Your task to perform on an android device: uninstall "Yahoo Mail" Image 0: 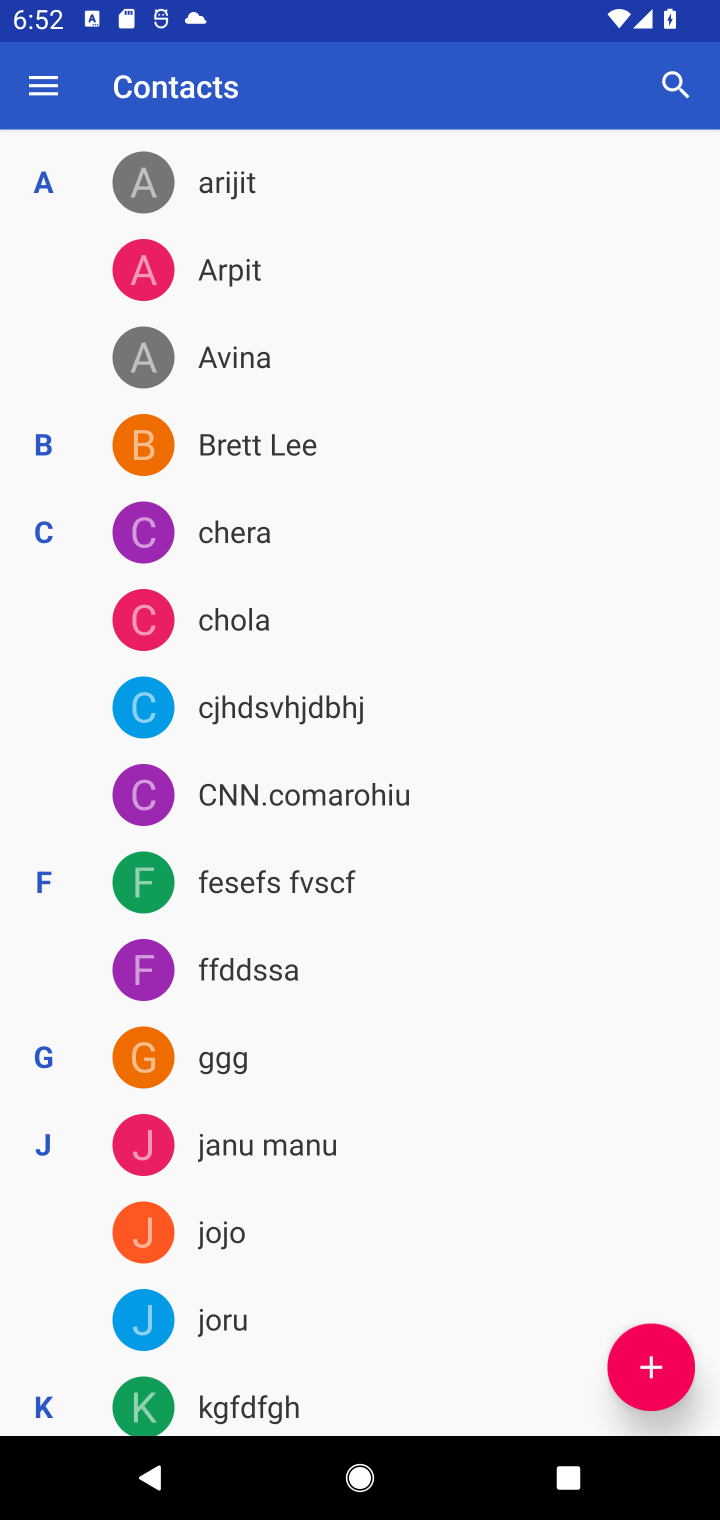
Step 0: press home button
Your task to perform on an android device: uninstall "Yahoo Mail" Image 1: 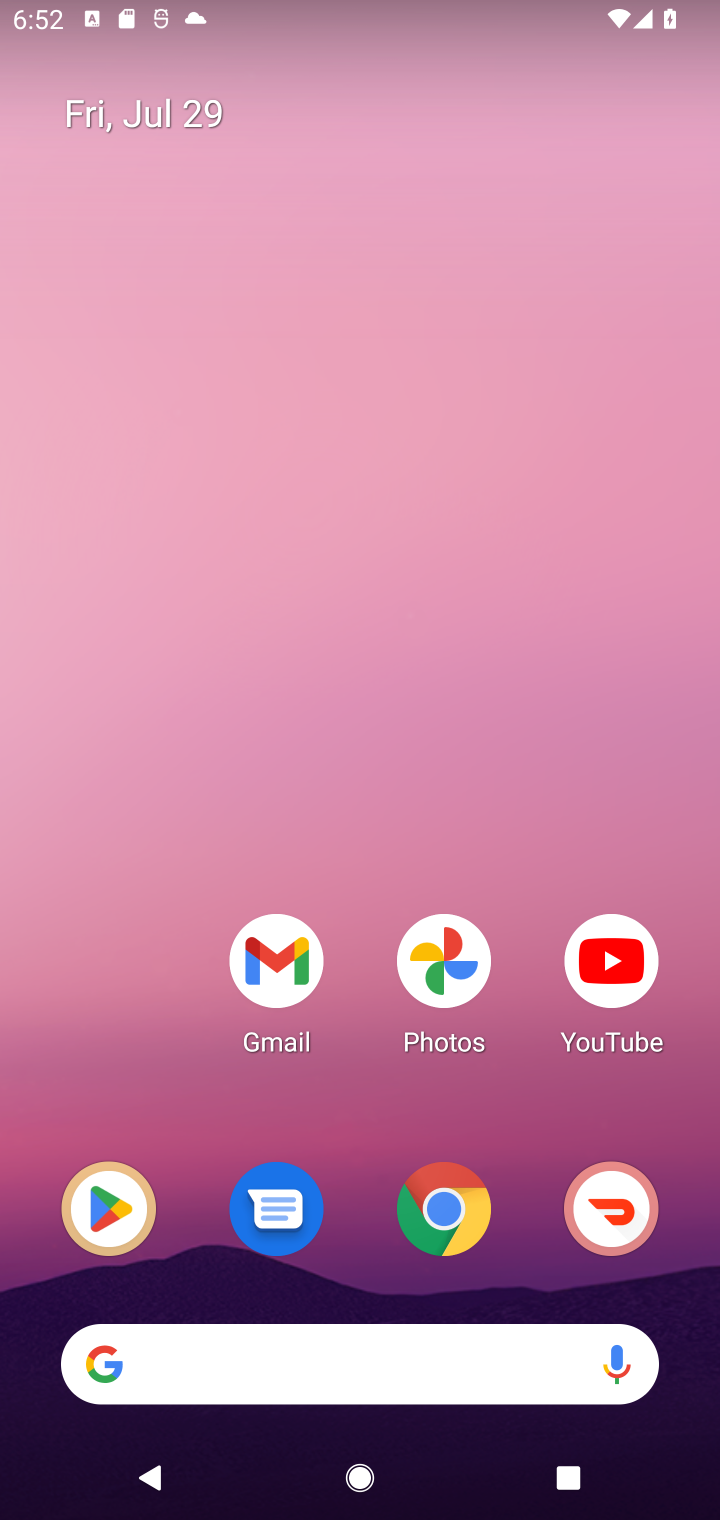
Step 1: drag from (382, 1200) to (444, 52)
Your task to perform on an android device: uninstall "Yahoo Mail" Image 2: 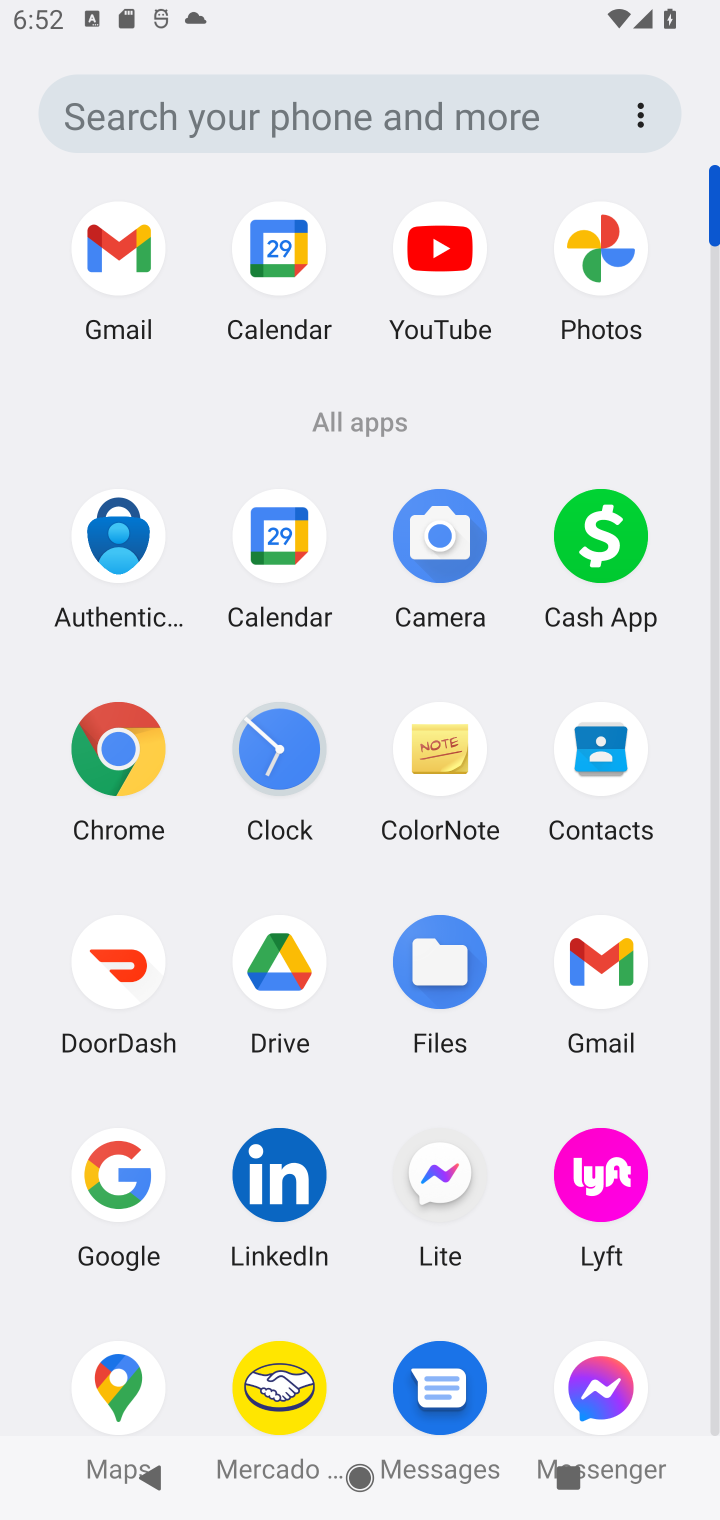
Step 2: drag from (695, 1217) to (706, 1090)
Your task to perform on an android device: uninstall "Yahoo Mail" Image 3: 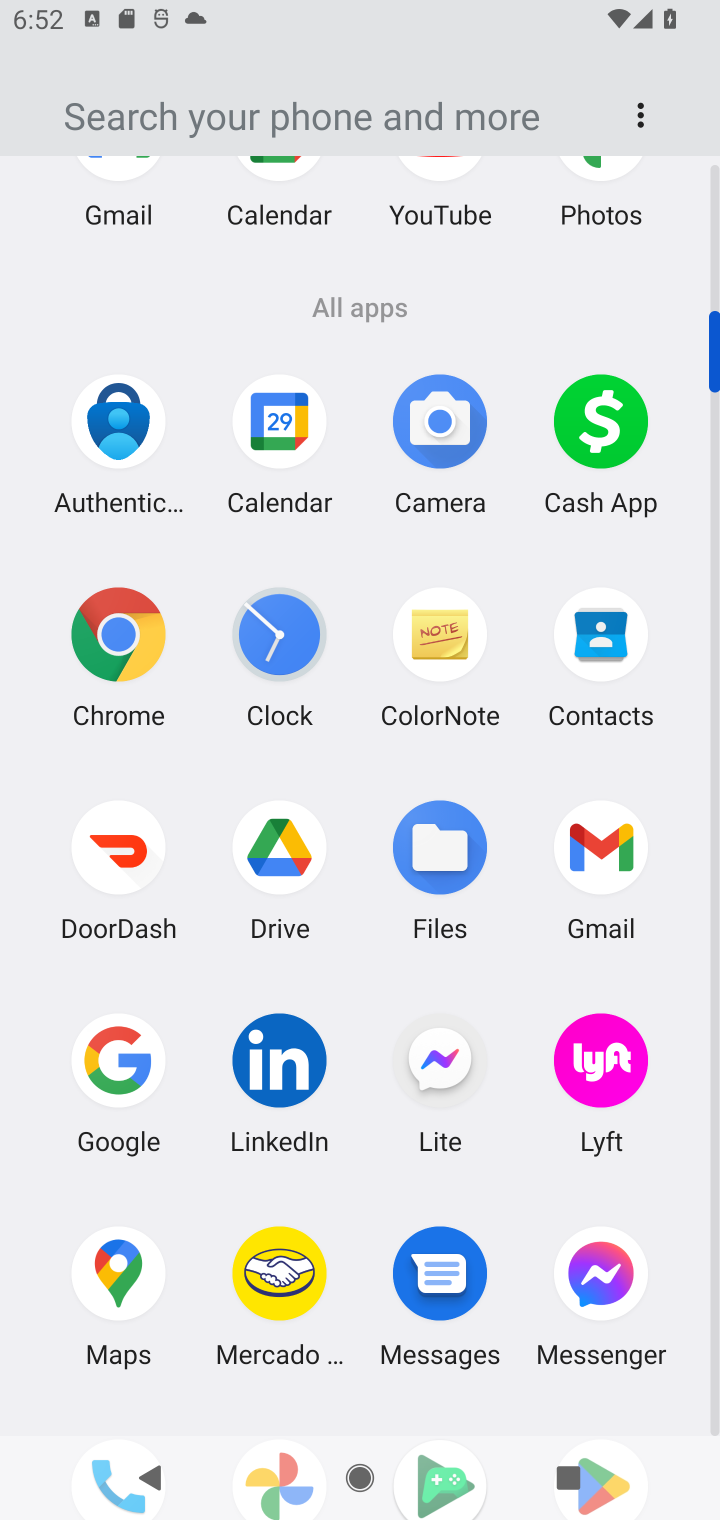
Step 3: drag from (710, 1232) to (718, 926)
Your task to perform on an android device: uninstall "Yahoo Mail" Image 4: 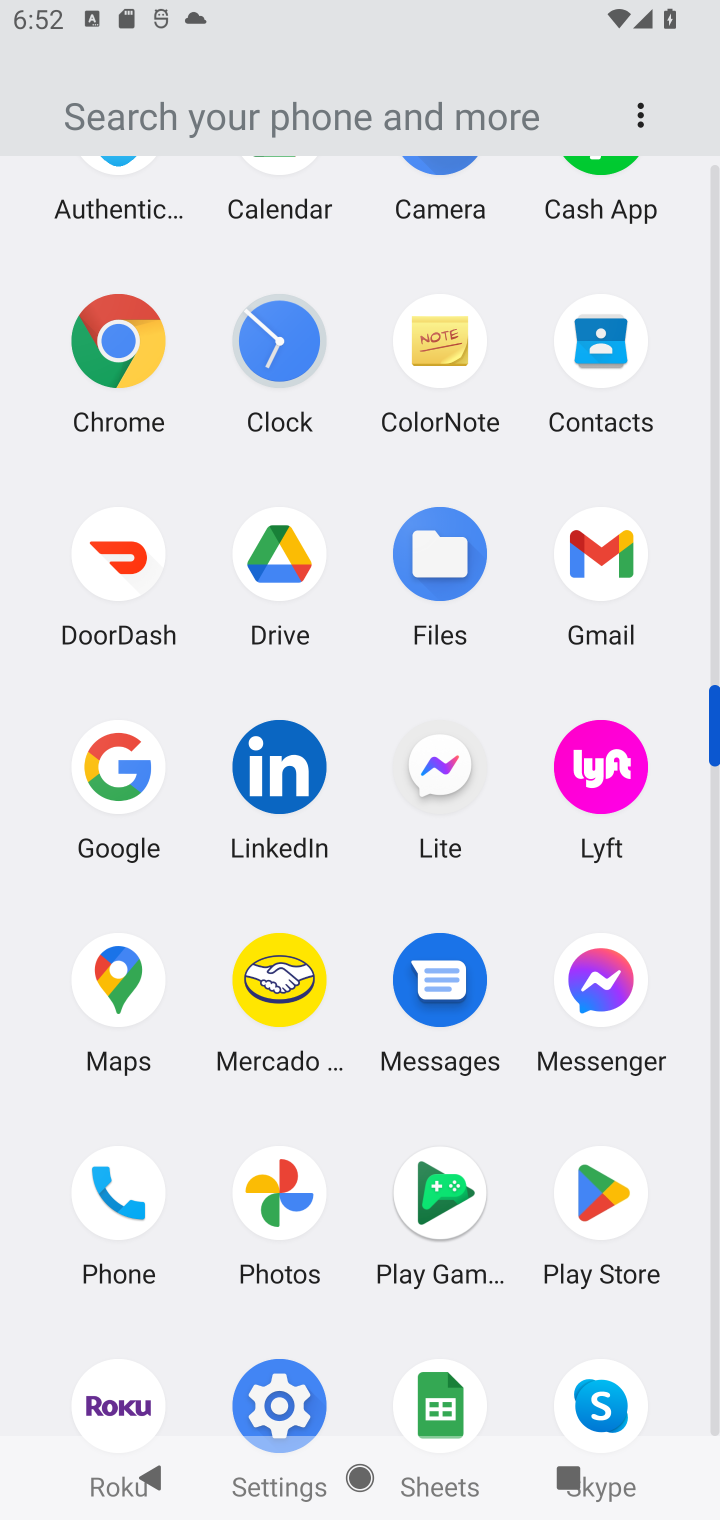
Step 4: click (713, 1120)
Your task to perform on an android device: uninstall "Yahoo Mail" Image 5: 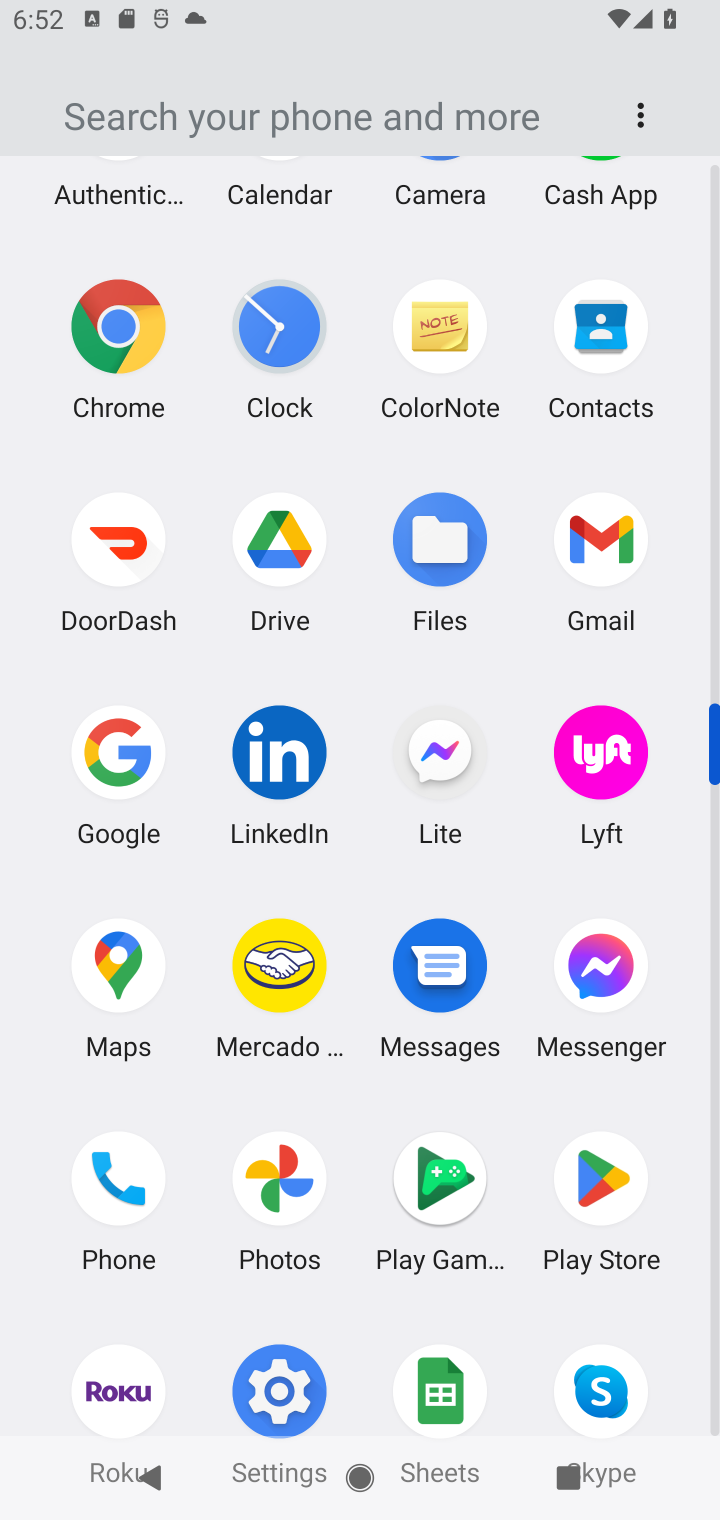
Step 5: click (703, 1136)
Your task to perform on an android device: uninstall "Yahoo Mail" Image 6: 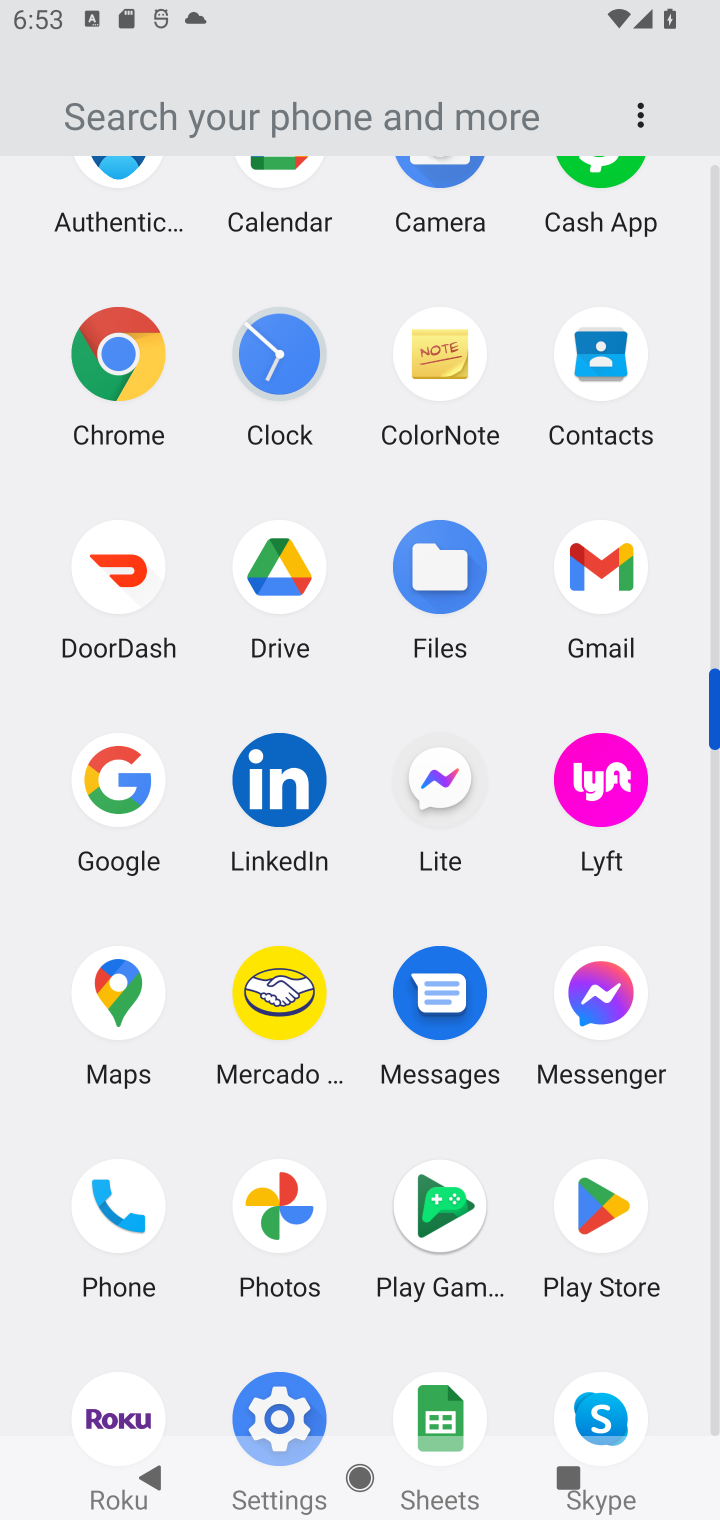
Step 6: drag from (711, 1188) to (714, 998)
Your task to perform on an android device: uninstall "Yahoo Mail" Image 7: 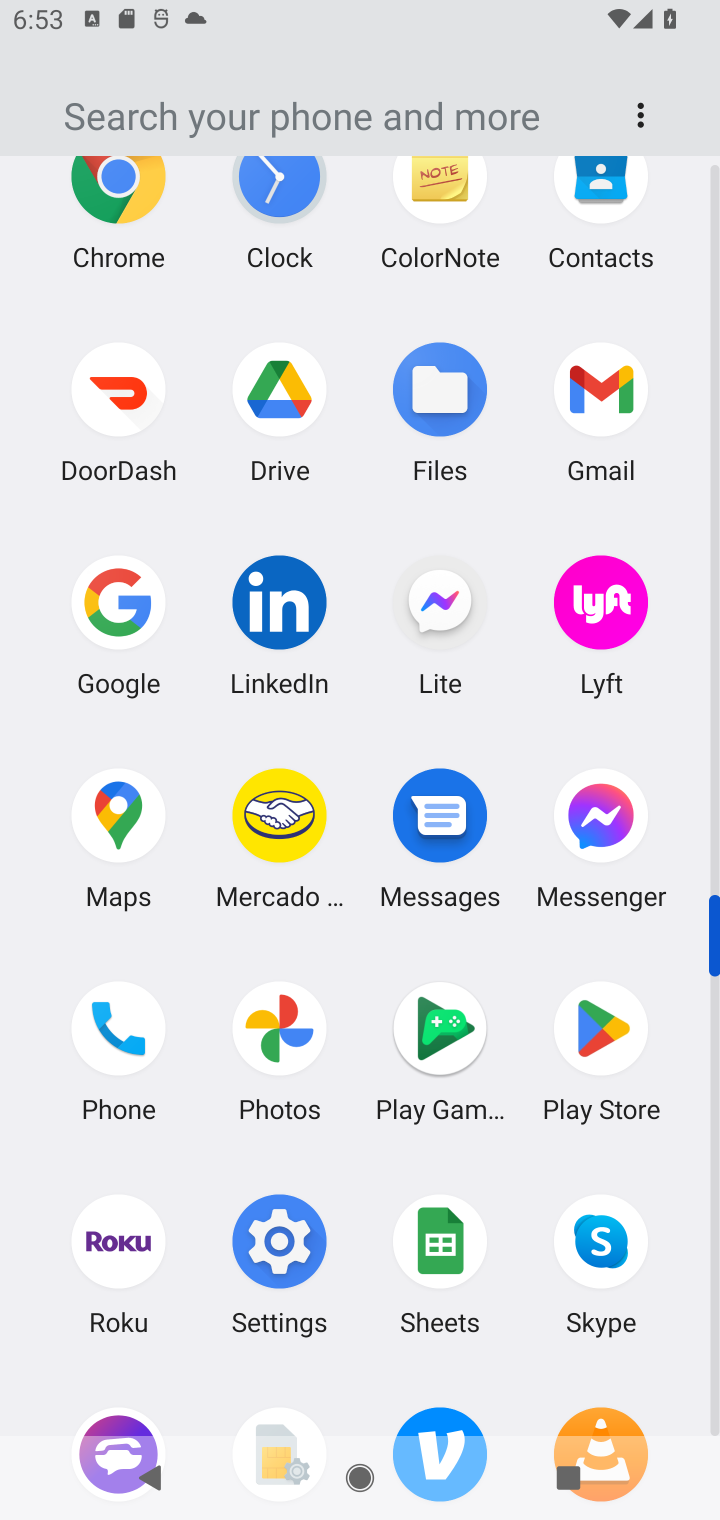
Step 7: drag from (718, 1180) to (718, 1048)
Your task to perform on an android device: uninstall "Yahoo Mail" Image 8: 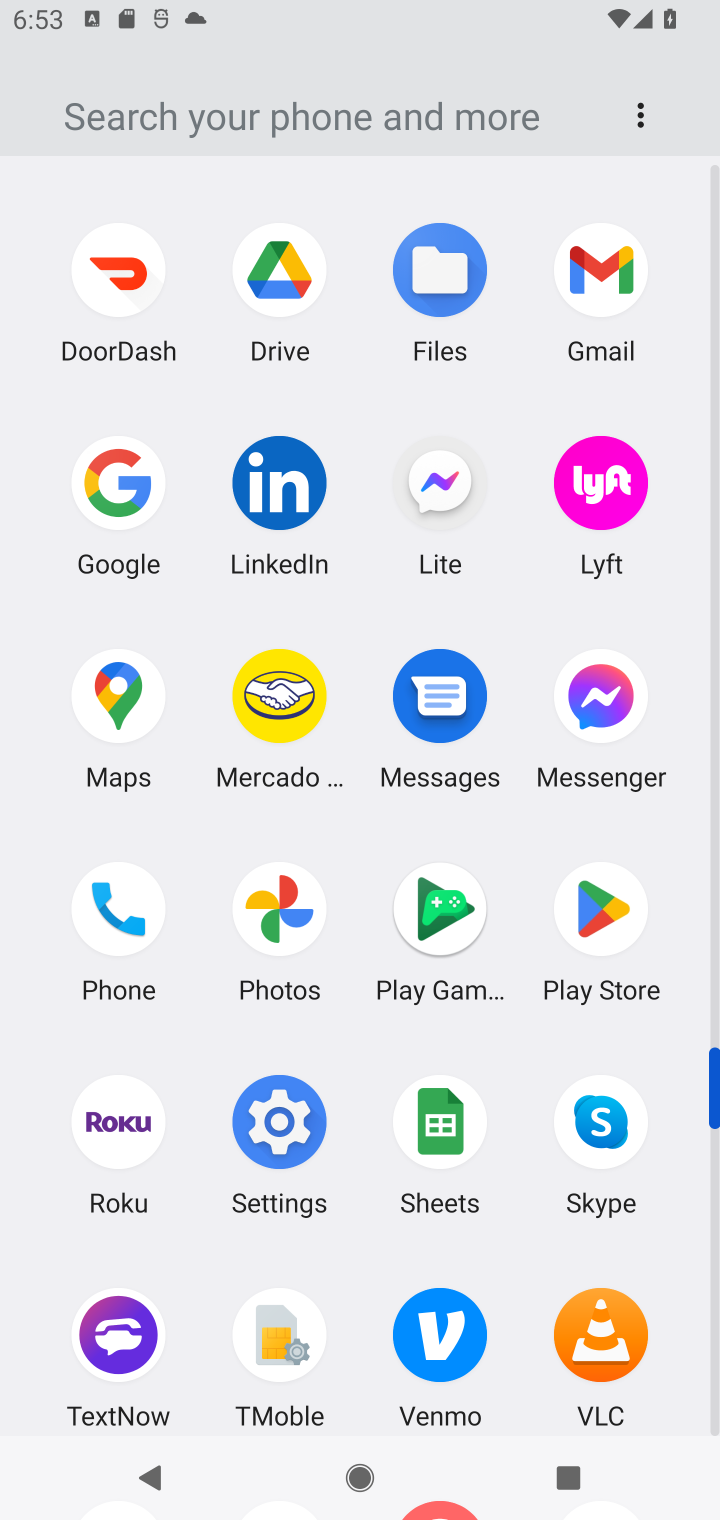
Step 8: drag from (716, 1110) to (719, 963)
Your task to perform on an android device: uninstall "Yahoo Mail" Image 9: 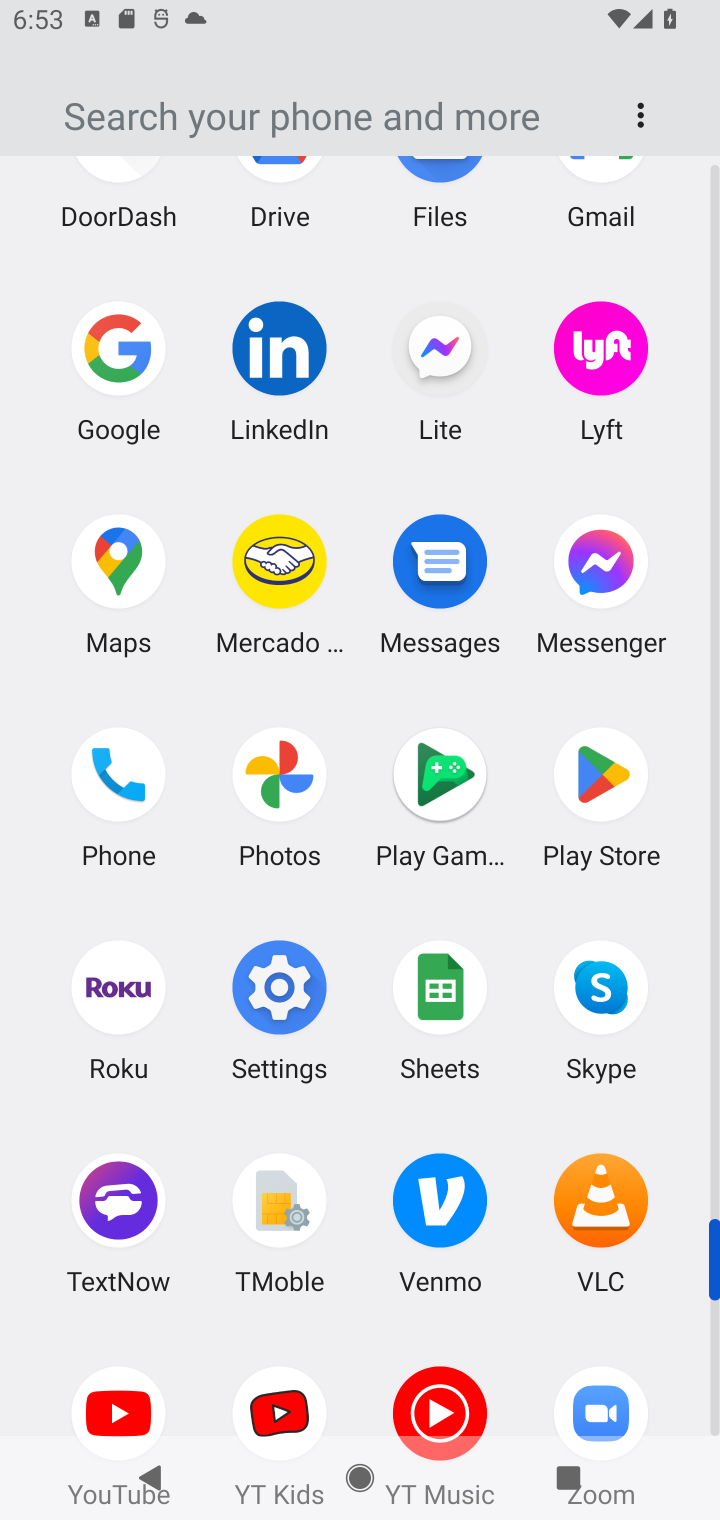
Step 9: click (589, 797)
Your task to perform on an android device: uninstall "Yahoo Mail" Image 10: 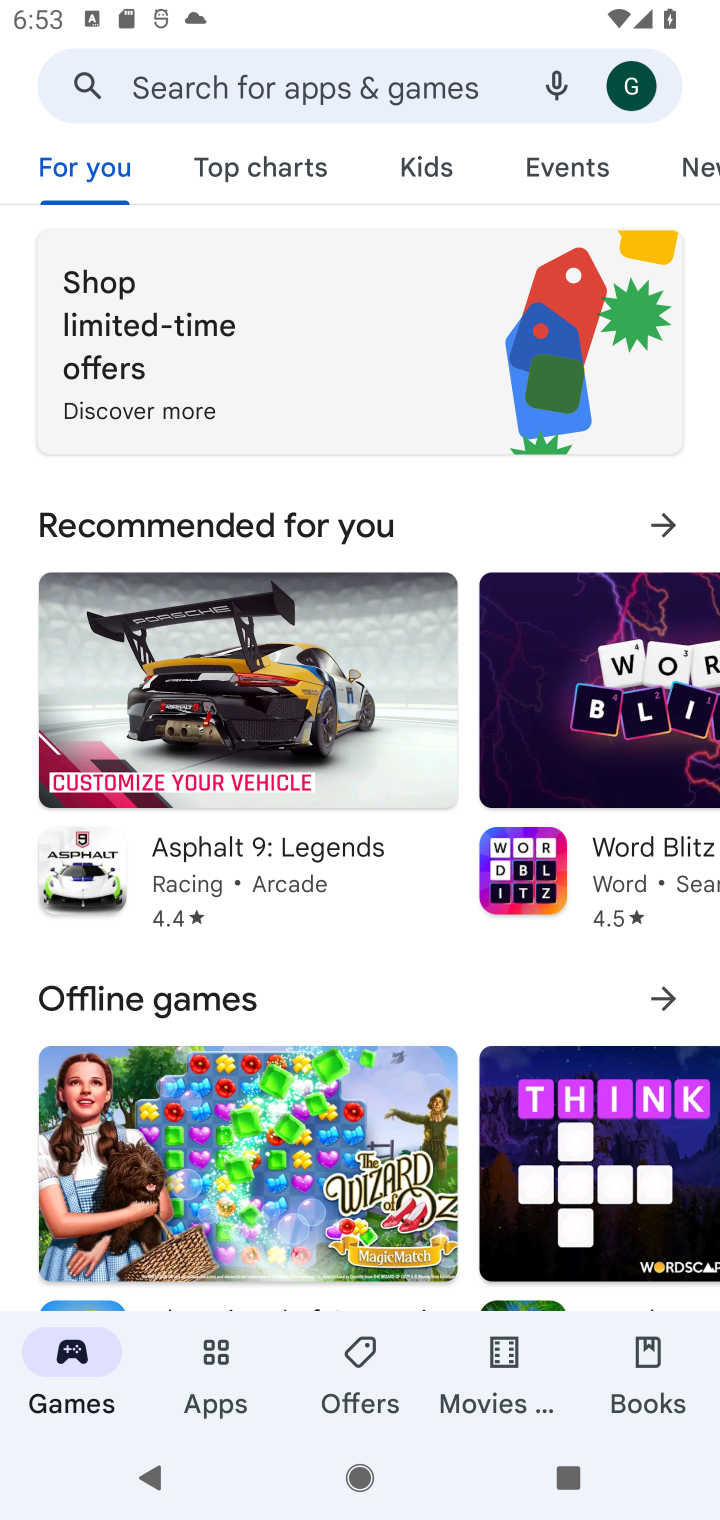
Step 10: click (119, 84)
Your task to perform on an android device: uninstall "Yahoo Mail" Image 11: 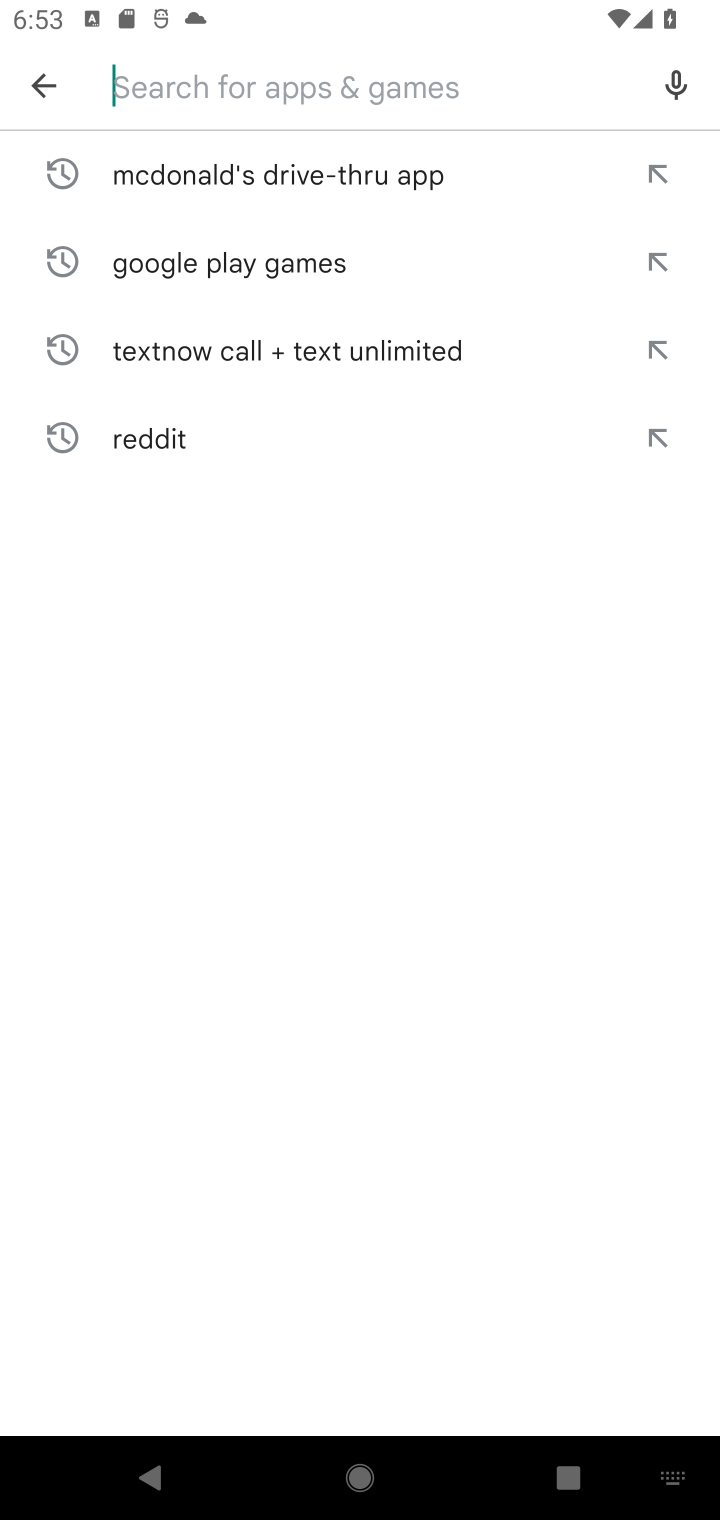
Step 11: type "yahoo mail"
Your task to perform on an android device: uninstall "Yahoo Mail" Image 12: 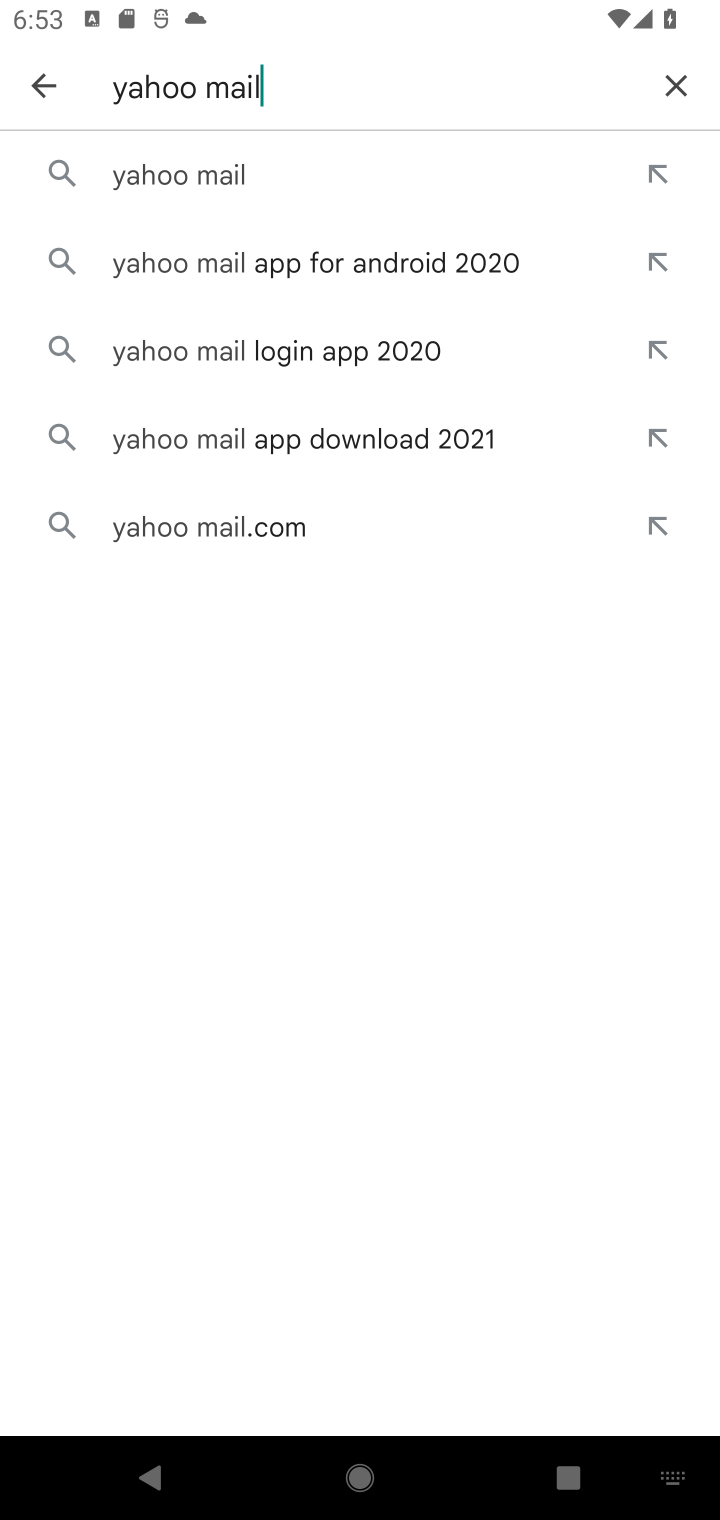
Step 12: click (137, 187)
Your task to perform on an android device: uninstall "Yahoo Mail" Image 13: 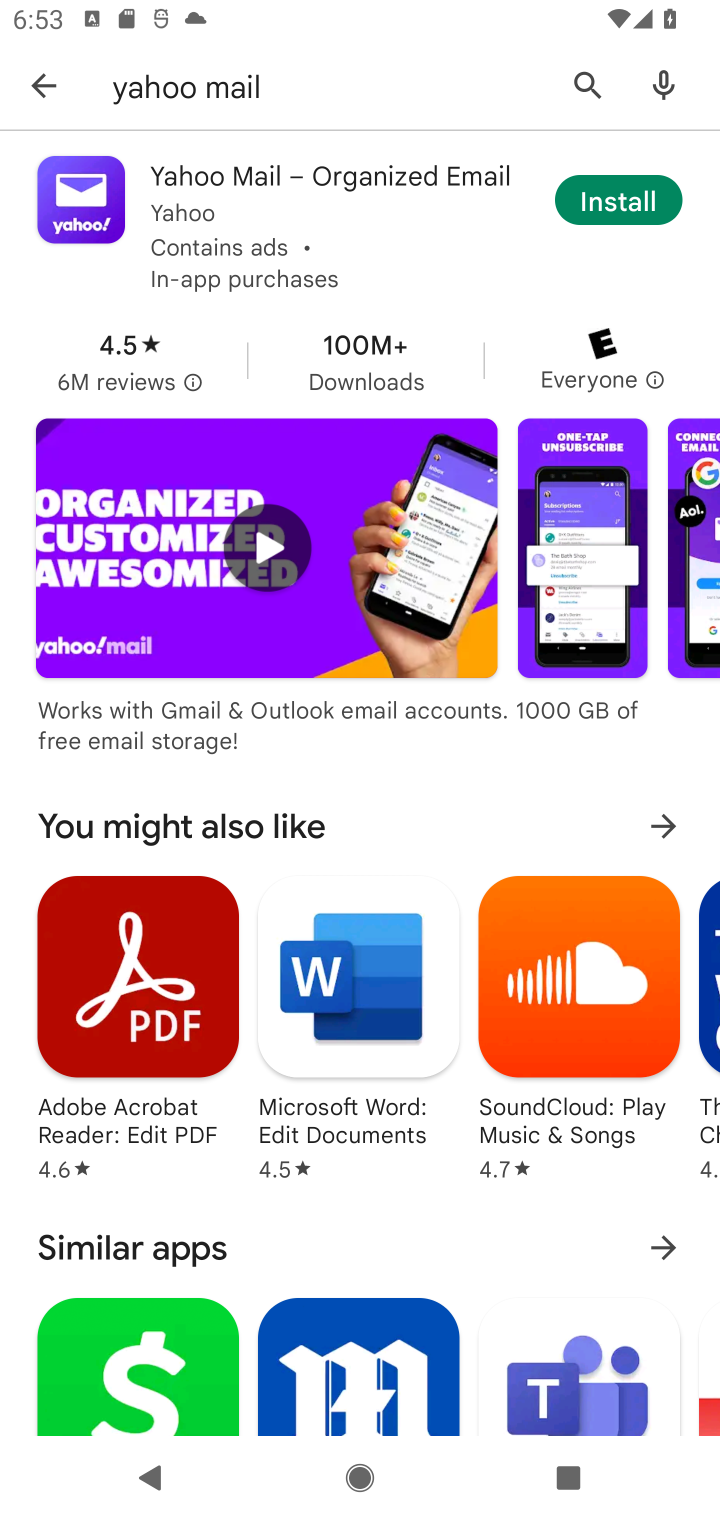
Step 13: task complete